Your task to perform on an android device: turn off javascript in the chrome app Image 0: 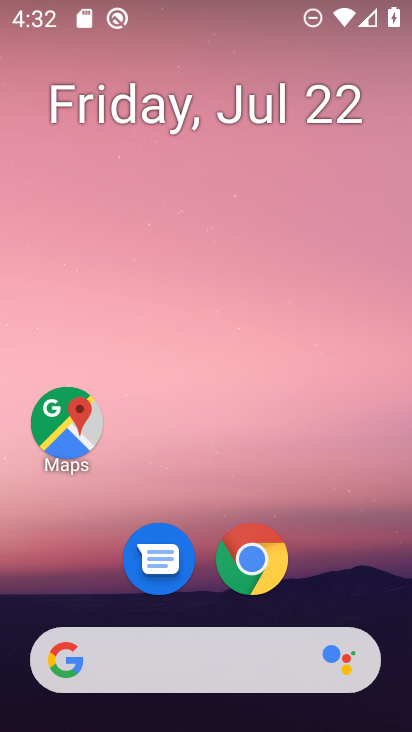
Step 0: click (260, 567)
Your task to perform on an android device: turn off javascript in the chrome app Image 1: 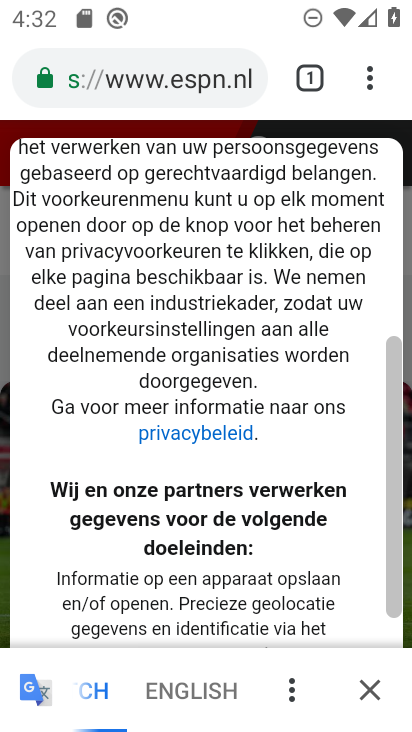
Step 1: drag from (375, 77) to (100, 620)
Your task to perform on an android device: turn off javascript in the chrome app Image 2: 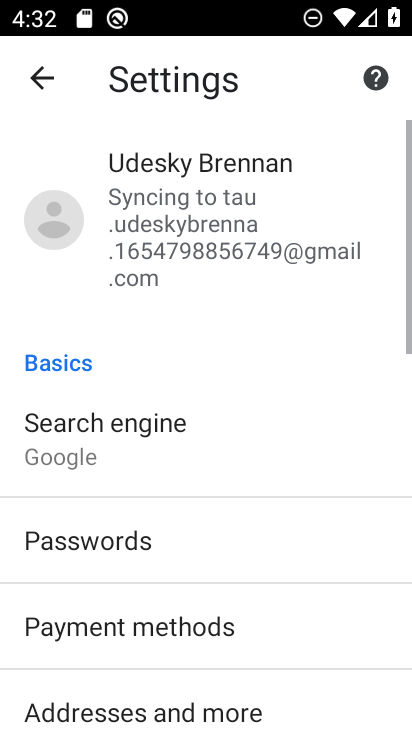
Step 2: drag from (115, 651) to (231, 91)
Your task to perform on an android device: turn off javascript in the chrome app Image 3: 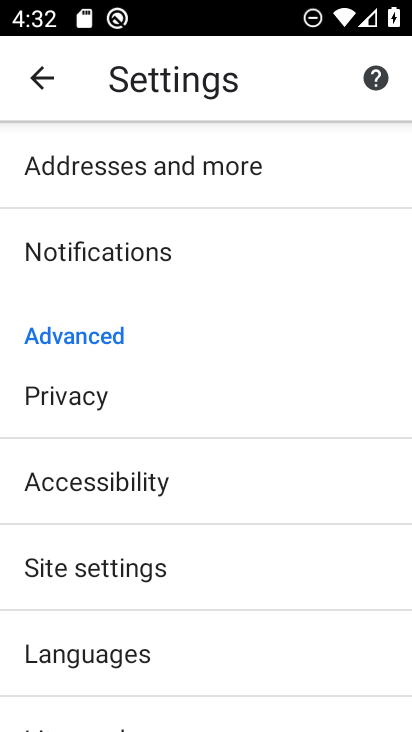
Step 3: click (92, 565)
Your task to perform on an android device: turn off javascript in the chrome app Image 4: 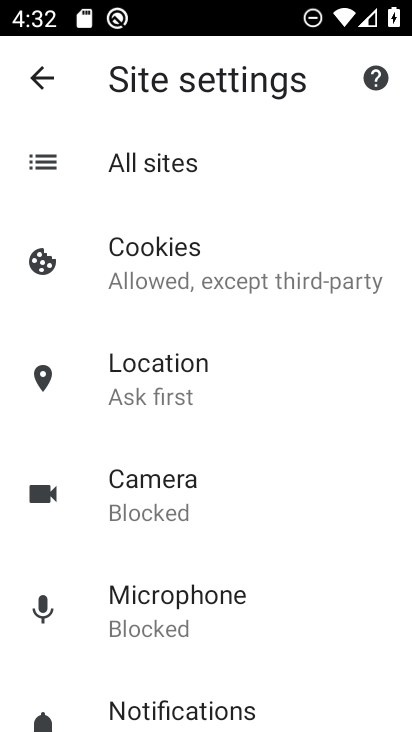
Step 4: drag from (161, 577) to (246, 19)
Your task to perform on an android device: turn off javascript in the chrome app Image 5: 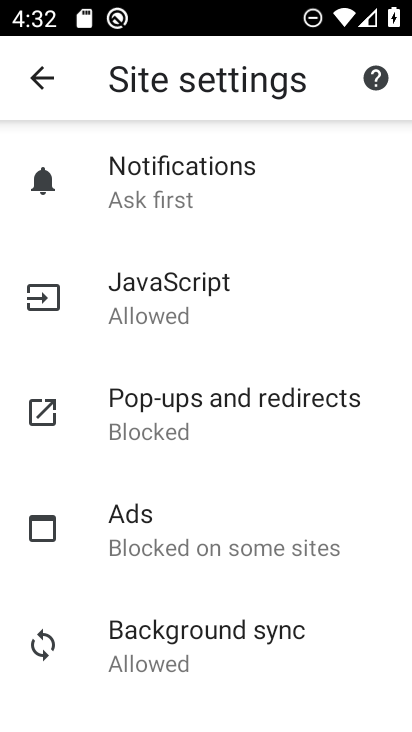
Step 5: click (158, 333)
Your task to perform on an android device: turn off javascript in the chrome app Image 6: 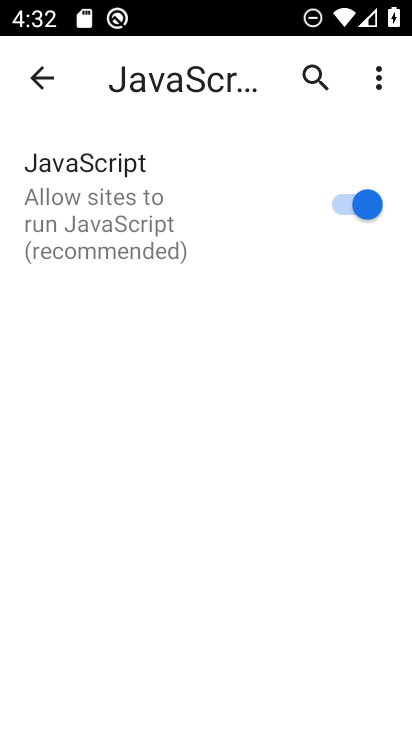
Step 6: click (361, 198)
Your task to perform on an android device: turn off javascript in the chrome app Image 7: 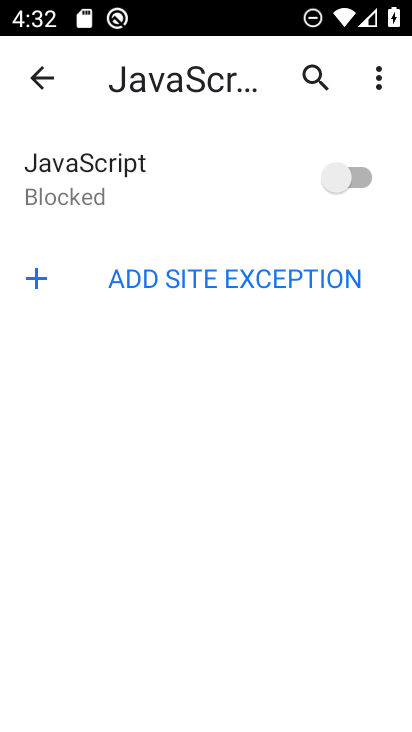
Step 7: task complete